Your task to perform on an android device: Open the map Image 0: 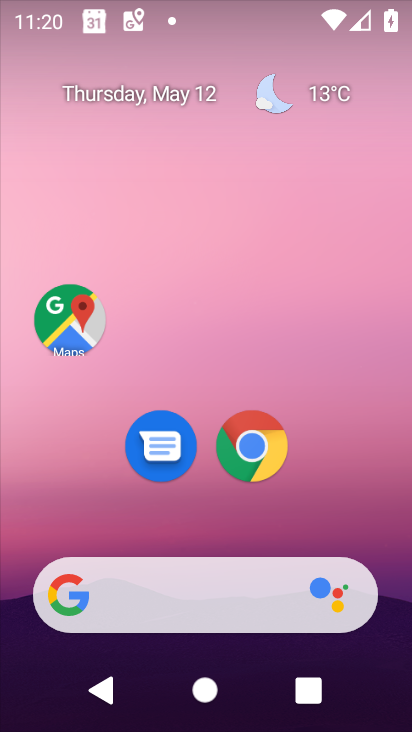
Step 0: drag from (272, 556) to (248, 3)
Your task to perform on an android device: Open the map Image 1: 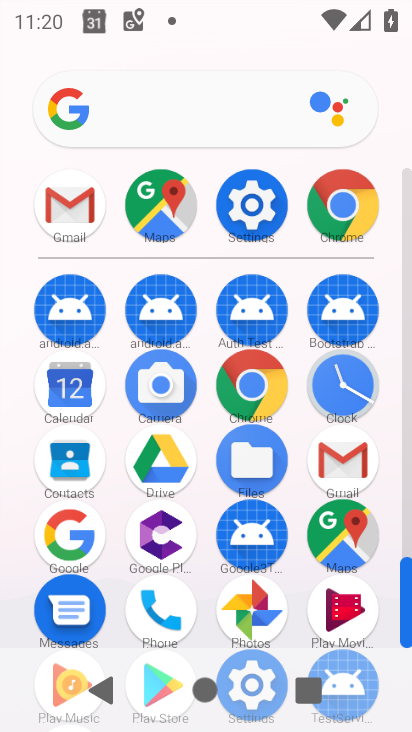
Step 1: click (362, 531)
Your task to perform on an android device: Open the map Image 2: 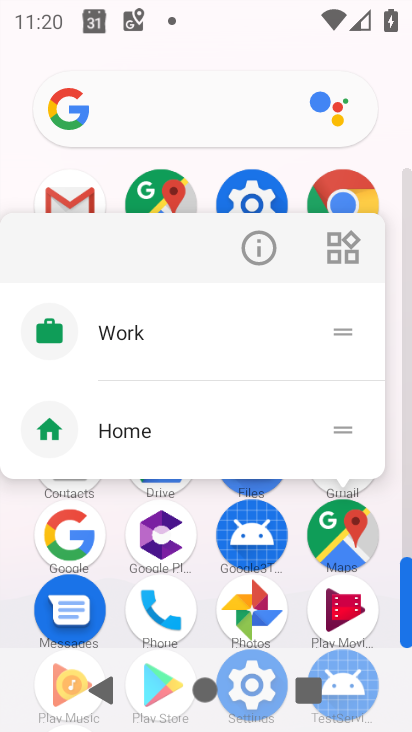
Step 2: click (331, 541)
Your task to perform on an android device: Open the map Image 3: 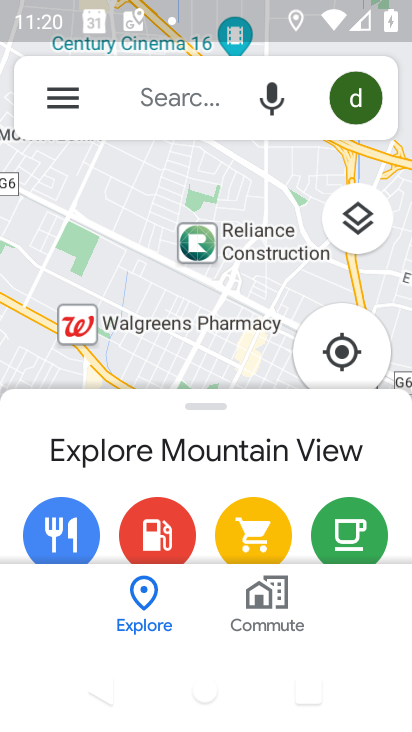
Step 3: task complete